Your task to perform on an android device: open a bookmark in the chrome app Image 0: 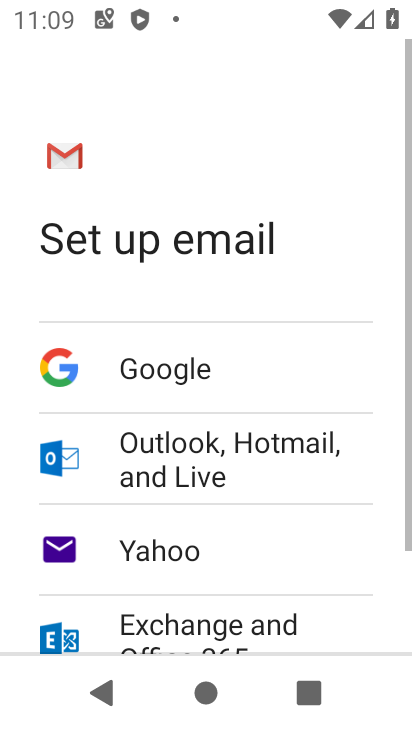
Step 0: press home button
Your task to perform on an android device: open a bookmark in the chrome app Image 1: 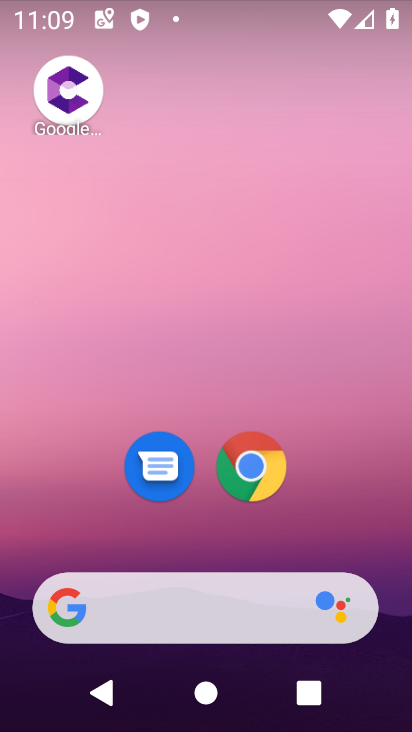
Step 1: drag from (395, 664) to (241, 42)
Your task to perform on an android device: open a bookmark in the chrome app Image 2: 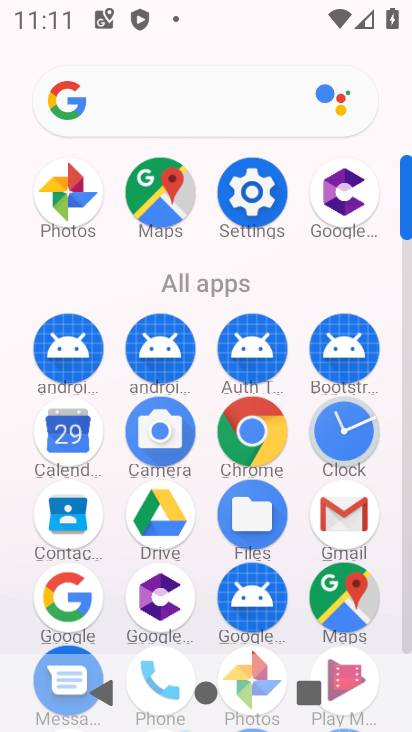
Step 2: click (264, 431)
Your task to perform on an android device: open a bookmark in the chrome app Image 3: 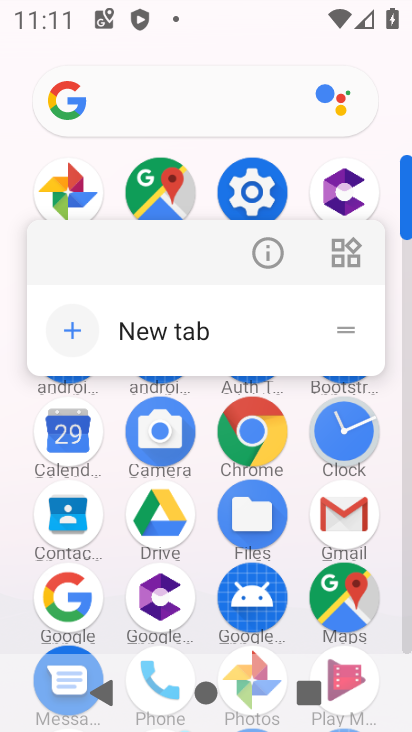
Step 3: click (263, 413)
Your task to perform on an android device: open a bookmark in the chrome app Image 4: 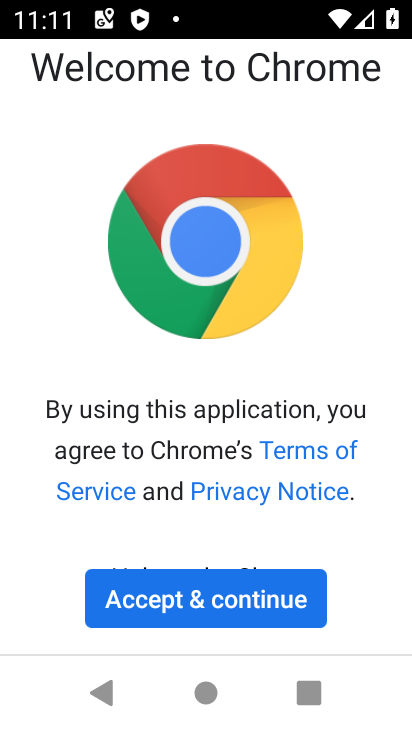
Step 4: click (241, 584)
Your task to perform on an android device: open a bookmark in the chrome app Image 5: 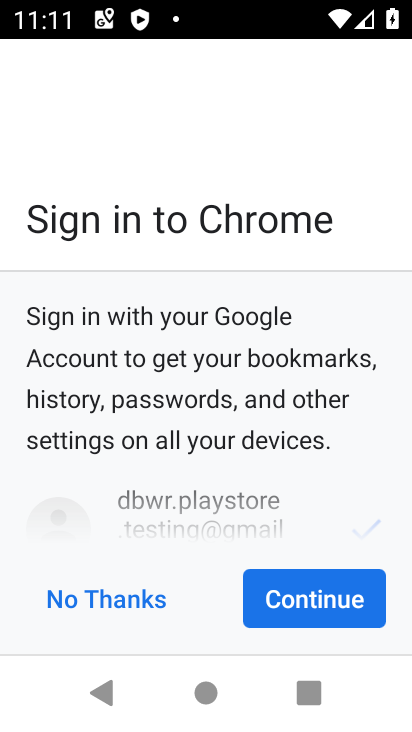
Step 5: click (299, 599)
Your task to perform on an android device: open a bookmark in the chrome app Image 6: 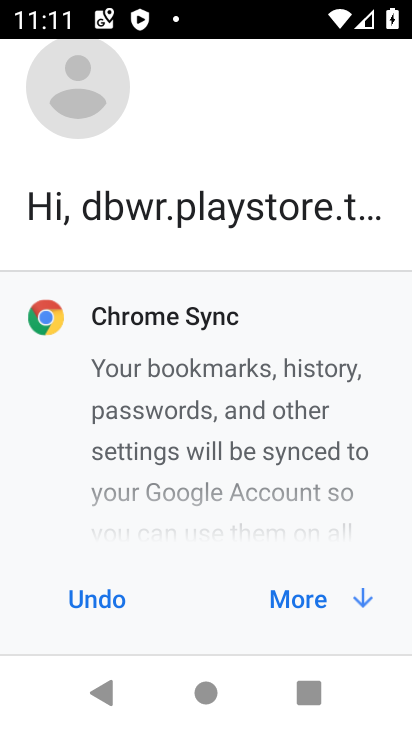
Step 6: click (299, 599)
Your task to perform on an android device: open a bookmark in the chrome app Image 7: 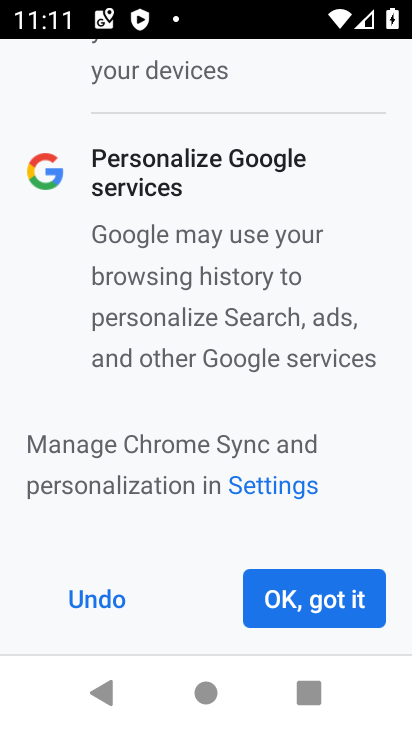
Step 7: click (299, 599)
Your task to perform on an android device: open a bookmark in the chrome app Image 8: 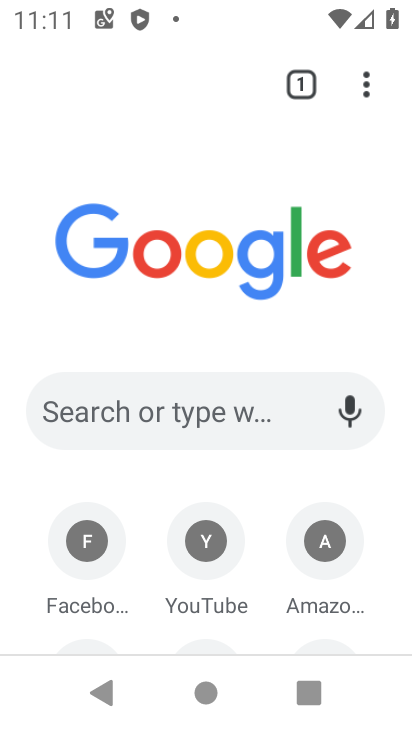
Step 8: click (365, 79)
Your task to perform on an android device: open a bookmark in the chrome app Image 9: 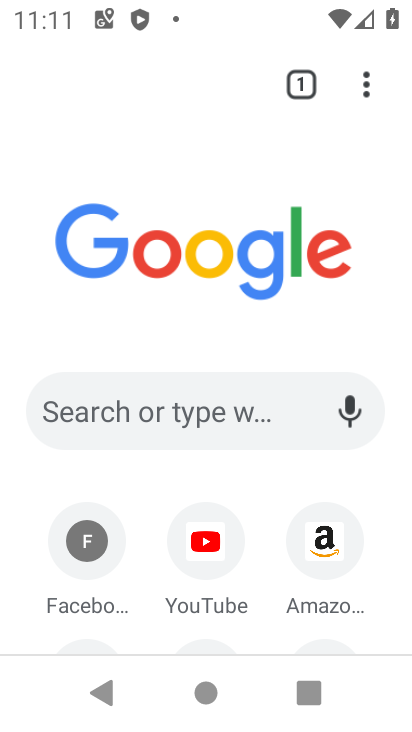
Step 9: click (366, 78)
Your task to perform on an android device: open a bookmark in the chrome app Image 10: 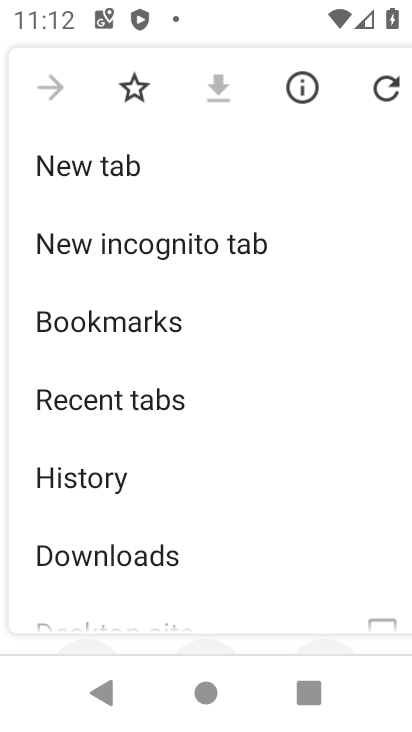
Step 10: click (154, 330)
Your task to perform on an android device: open a bookmark in the chrome app Image 11: 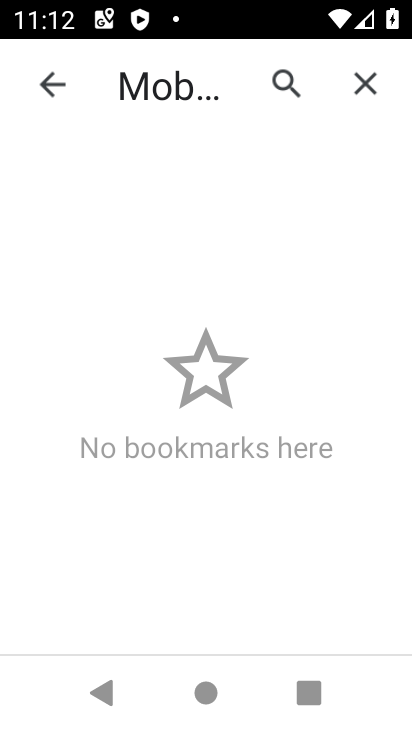
Step 11: task complete